Your task to perform on an android device: Show me the alarms in the clock app Image 0: 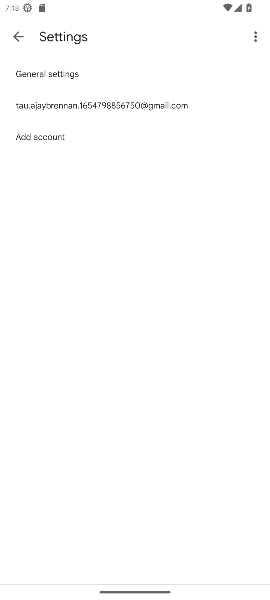
Step 0: press home button
Your task to perform on an android device: Show me the alarms in the clock app Image 1: 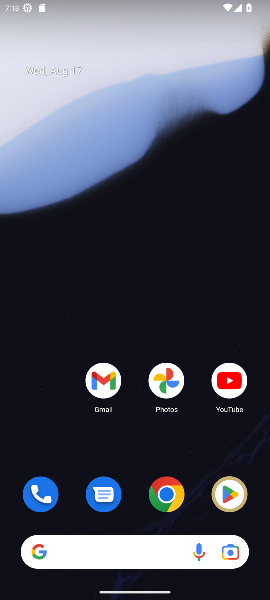
Step 1: drag from (129, 523) to (219, 4)
Your task to perform on an android device: Show me the alarms in the clock app Image 2: 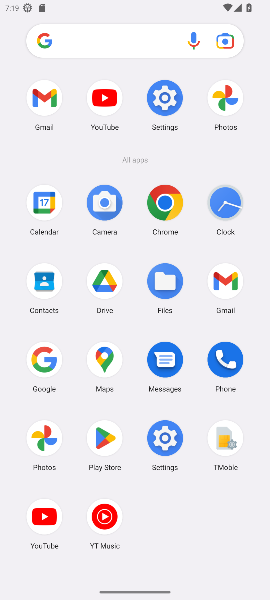
Step 2: click (231, 205)
Your task to perform on an android device: Show me the alarms in the clock app Image 3: 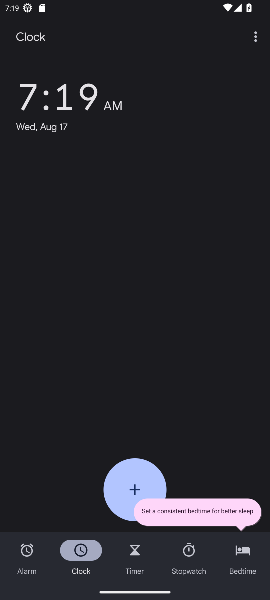
Step 3: click (29, 566)
Your task to perform on an android device: Show me the alarms in the clock app Image 4: 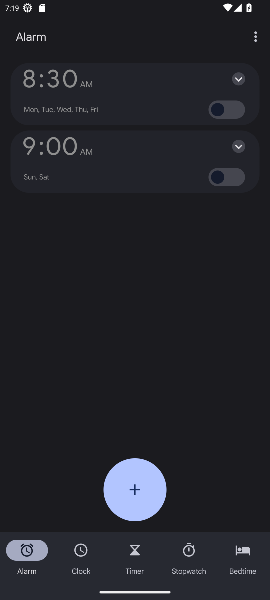
Step 4: click (78, 85)
Your task to perform on an android device: Show me the alarms in the clock app Image 5: 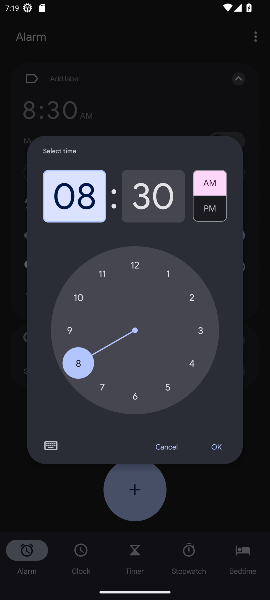
Step 5: task complete